Your task to perform on an android device: Open Chrome and go to settings Image 0: 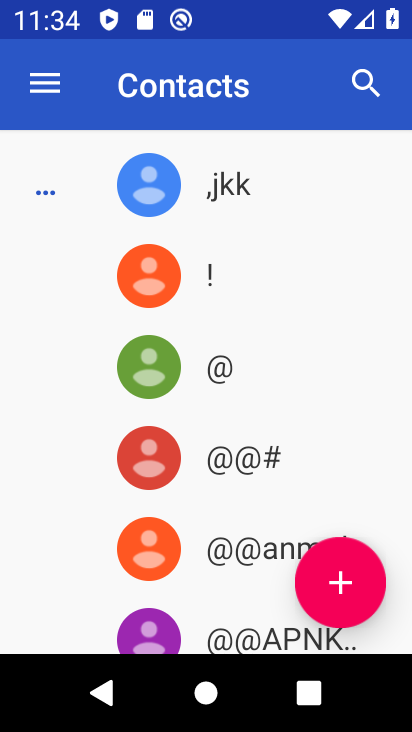
Step 0: press home button
Your task to perform on an android device: Open Chrome and go to settings Image 1: 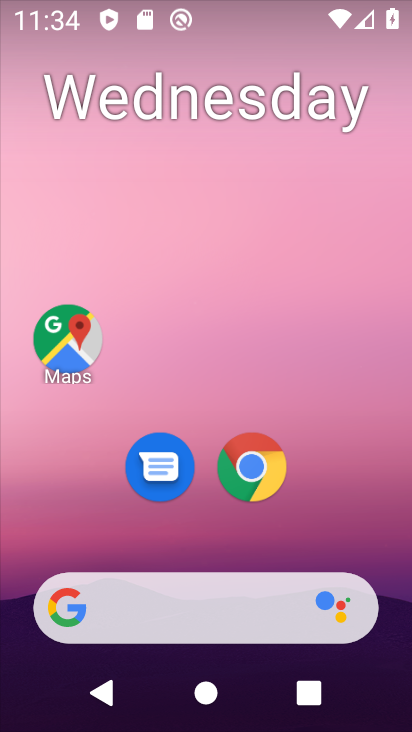
Step 1: drag from (144, 582) to (254, 197)
Your task to perform on an android device: Open Chrome and go to settings Image 2: 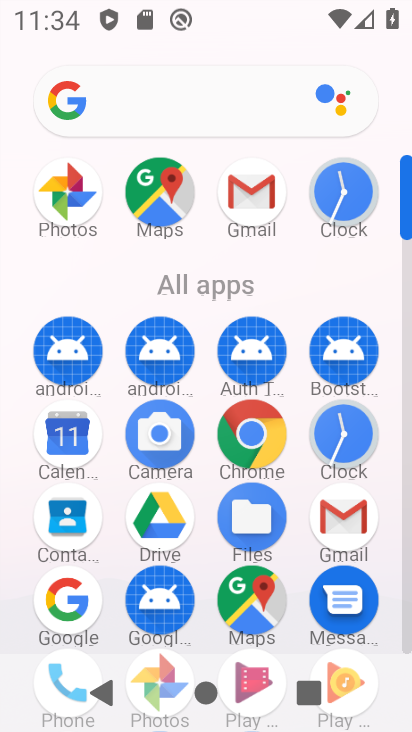
Step 2: click (248, 430)
Your task to perform on an android device: Open Chrome and go to settings Image 3: 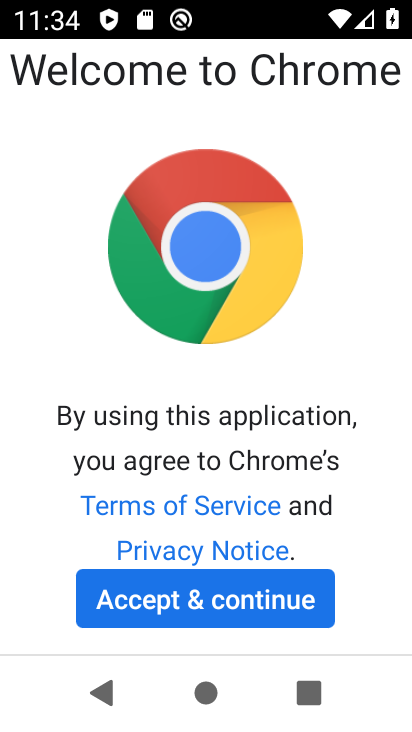
Step 3: click (186, 598)
Your task to perform on an android device: Open Chrome and go to settings Image 4: 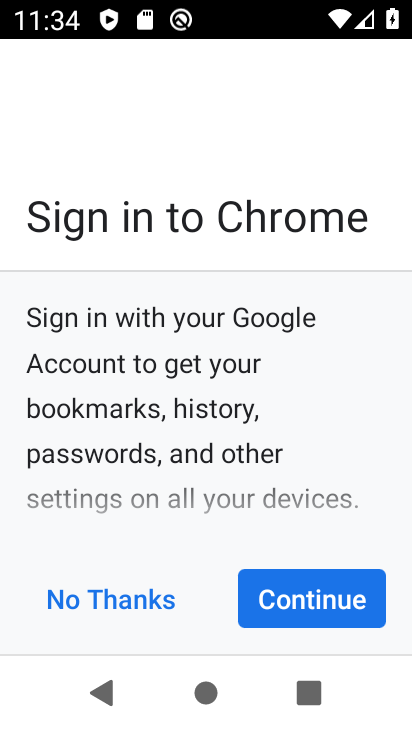
Step 4: click (291, 598)
Your task to perform on an android device: Open Chrome and go to settings Image 5: 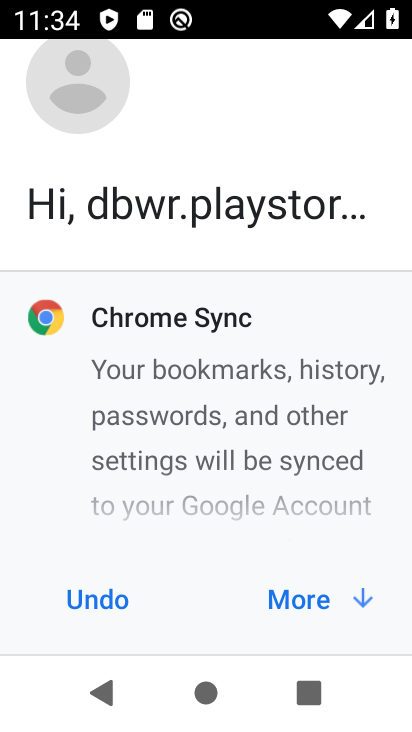
Step 5: click (291, 598)
Your task to perform on an android device: Open Chrome and go to settings Image 6: 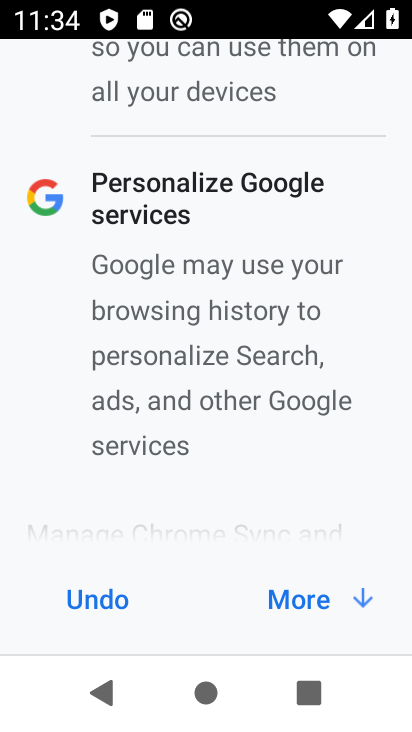
Step 6: click (304, 604)
Your task to perform on an android device: Open Chrome and go to settings Image 7: 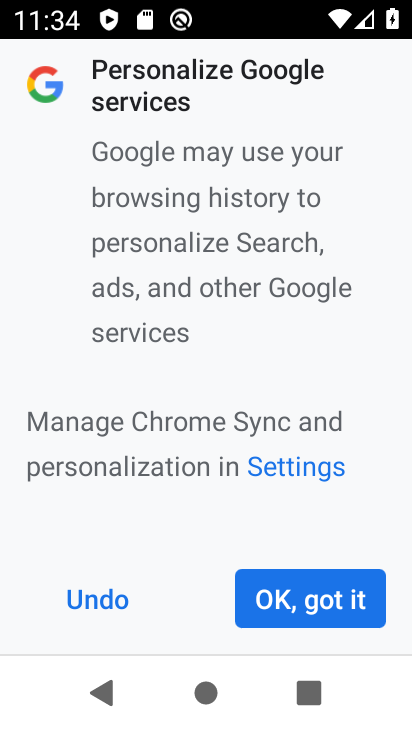
Step 7: click (304, 604)
Your task to perform on an android device: Open Chrome and go to settings Image 8: 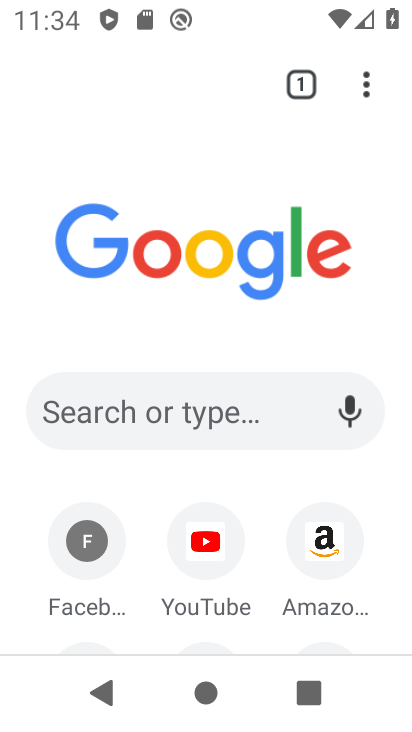
Step 8: task complete